Your task to perform on an android device: What's on my calendar tomorrow? Image 0: 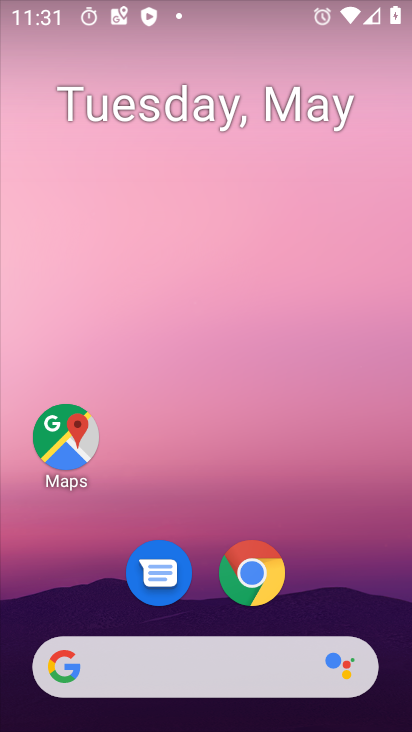
Step 0: drag from (313, 691) to (248, 207)
Your task to perform on an android device: What's on my calendar tomorrow? Image 1: 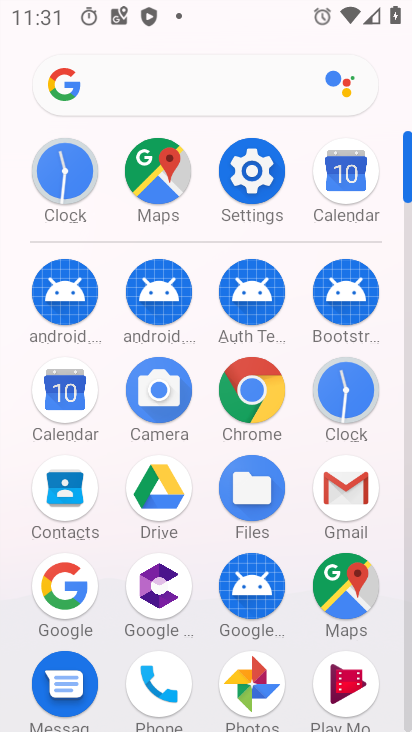
Step 1: click (74, 386)
Your task to perform on an android device: What's on my calendar tomorrow? Image 2: 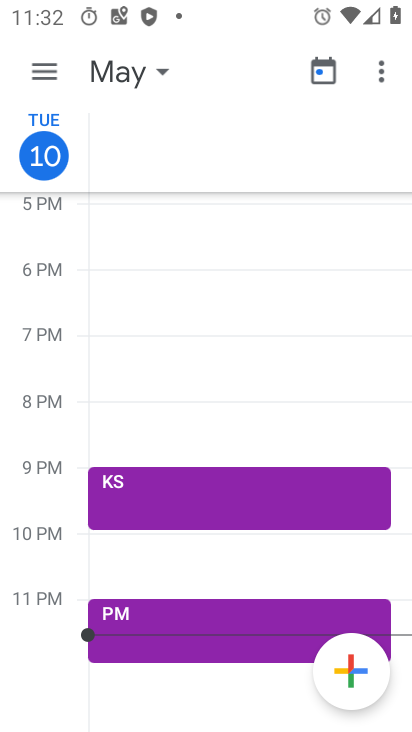
Step 2: click (26, 83)
Your task to perform on an android device: What's on my calendar tomorrow? Image 3: 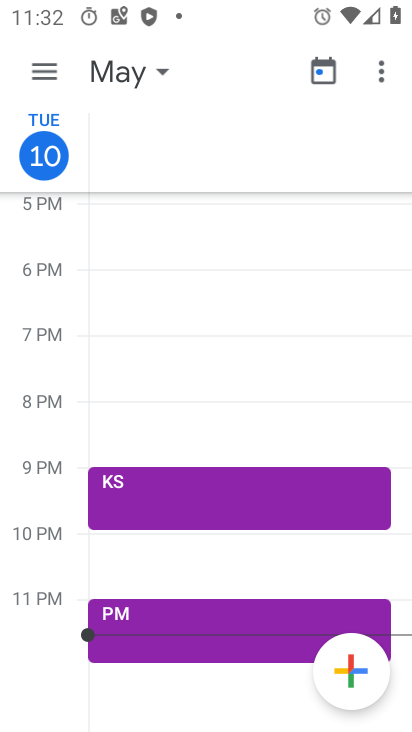
Step 3: click (37, 78)
Your task to perform on an android device: What's on my calendar tomorrow? Image 4: 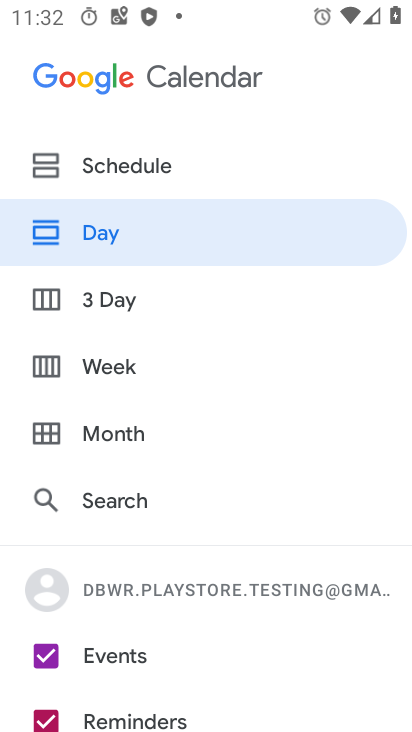
Step 4: click (103, 438)
Your task to perform on an android device: What's on my calendar tomorrow? Image 5: 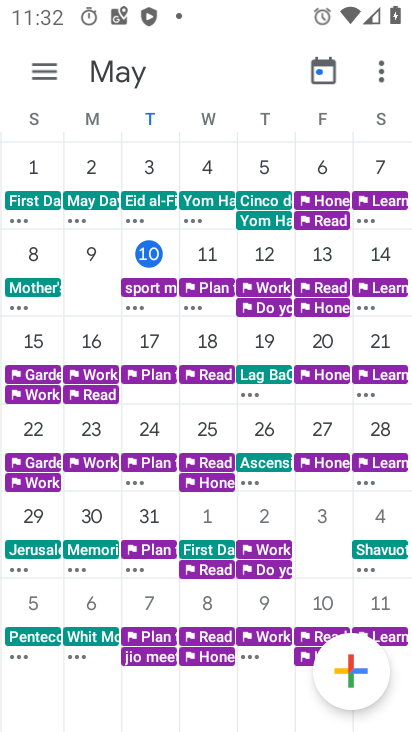
Step 5: click (219, 257)
Your task to perform on an android device: What's on my calendar tomorrow? Image 6: 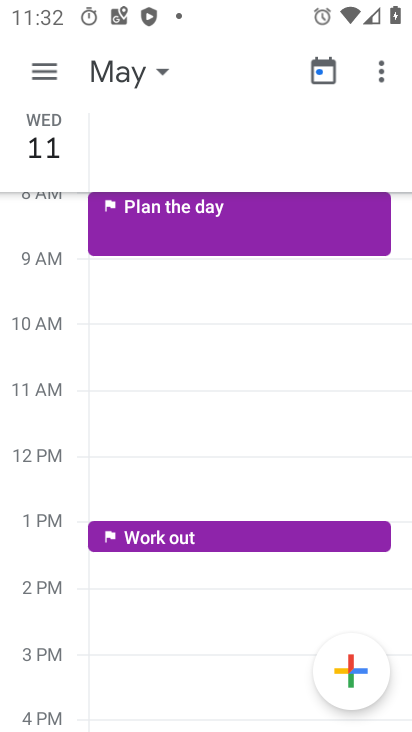
Step 6: task complete